Your task to perform on an android device: Open settings Image 0: 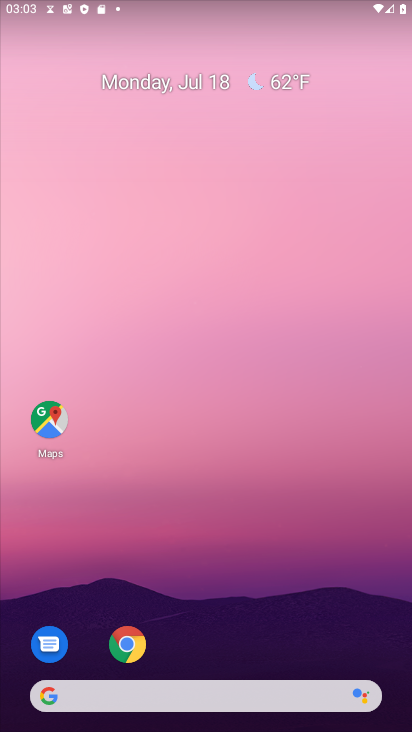
Step 0: drag from (276, 582) to (241, 172)
Your task to perform on an android device: Open settings Image 1: 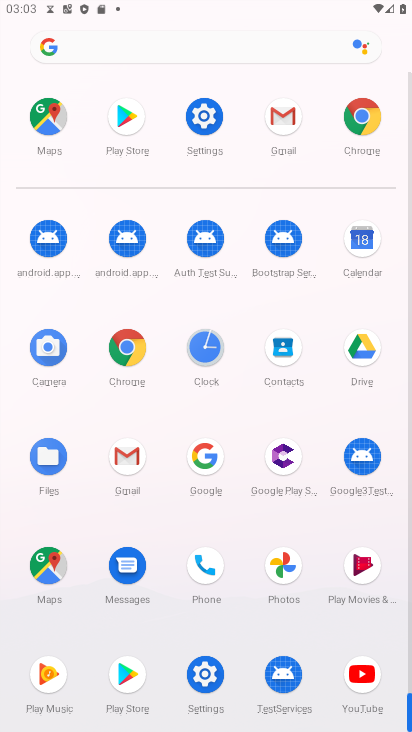
Step 1: click (189, 122)
Your task to perform on an android device: Open settings Image 2: 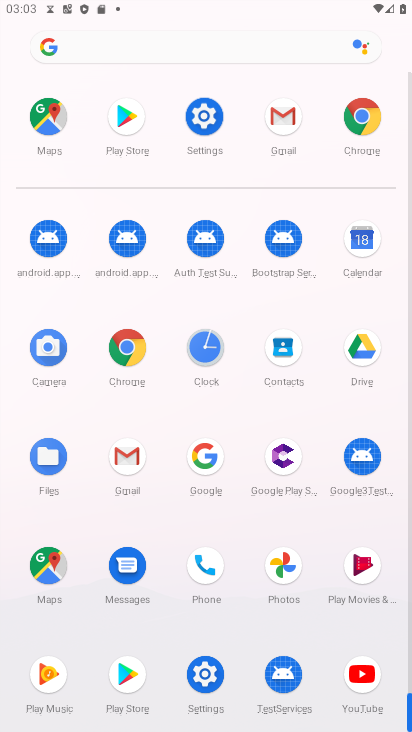
Step 2: click (190, 114)
Your task to perform on an android device: Open settings Image 3: 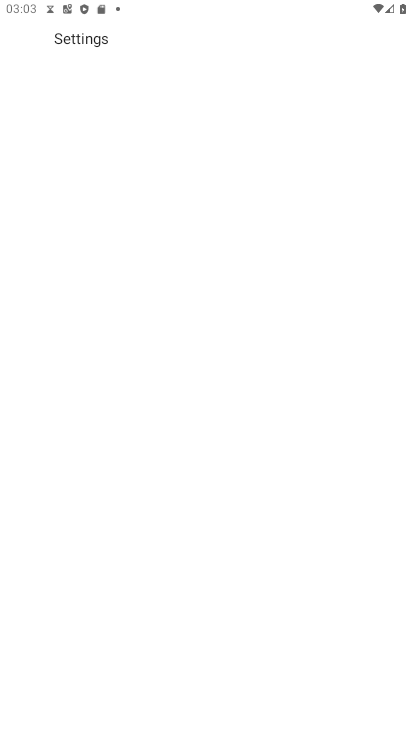
Step 3: task complete